Your task to perform on an android device: turn off sleep mode Image 0: 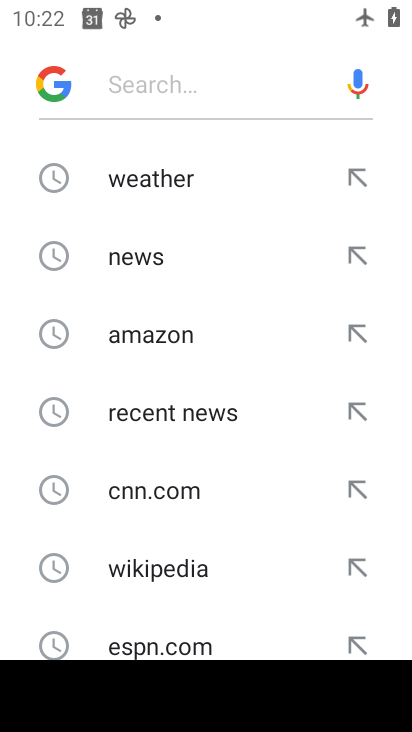
Step 0: press home button
Your task to perform on an android device: turn off sleep mode Image 1: 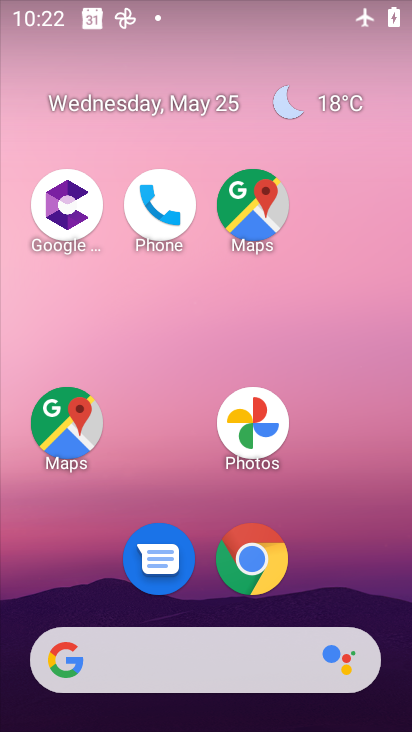
Step 1: drag from (334, 593) to (313, 70)
Your task to perform on an android device: turn off sleep mode Image 2: 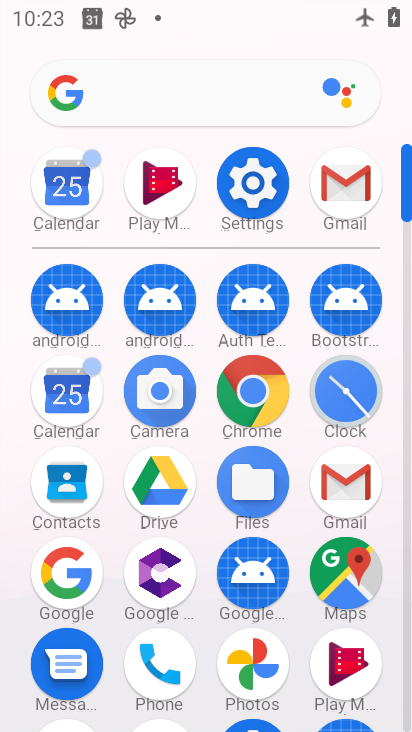
Step 2: click (261, 186)
Your task to perform on an android device: turn off sleep mode Image 3: 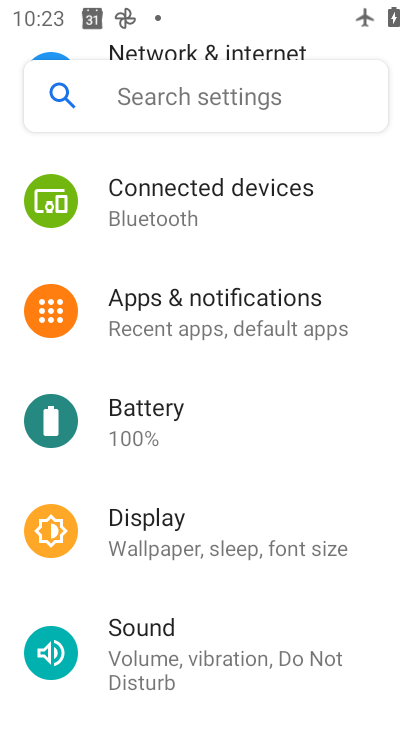
Step 3: click (182, 537)
Your task to perform on an android device: turn off sleep mode Image 4: 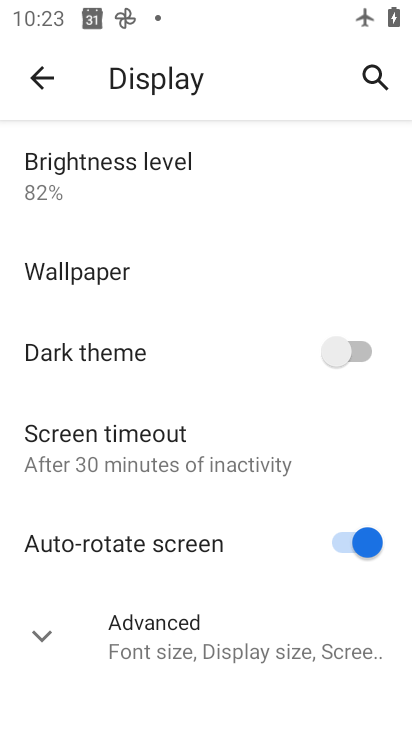
Step 4: click (211, 627)
Your task to perform on an android device: turn off sleep mode Image 5: 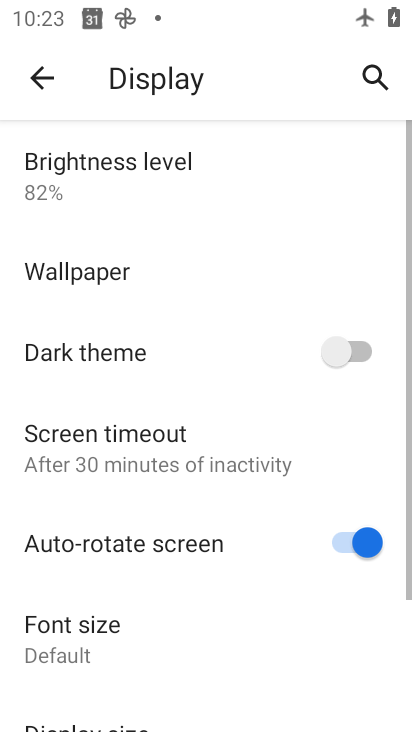
Step 5: task complete